Your task to perform on an android device: Is it going to rain today? Image 0: 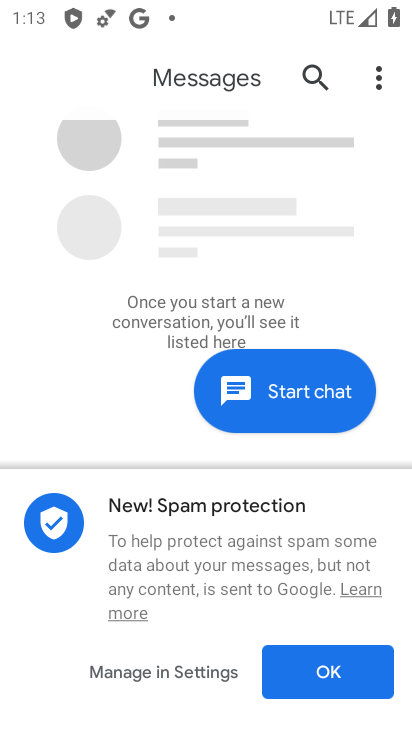
Step 0: press back button
Your task to perform on an android device: Is it going to rain today? Image 1: 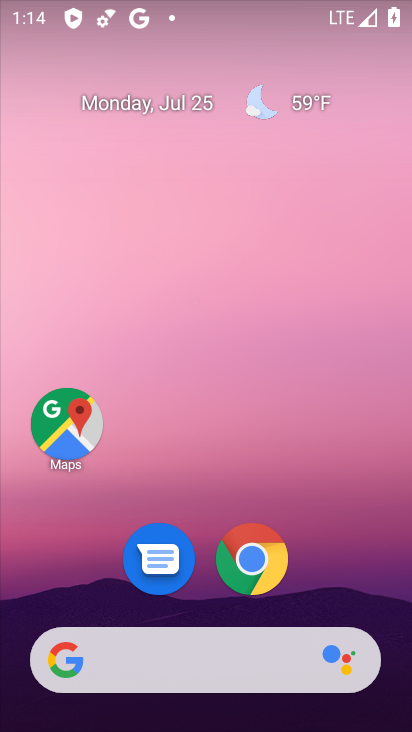
Step 1: drag from (74, 601) to (232, 44)
Your task to perform on an android device: Is it going to rain today? Image 2: 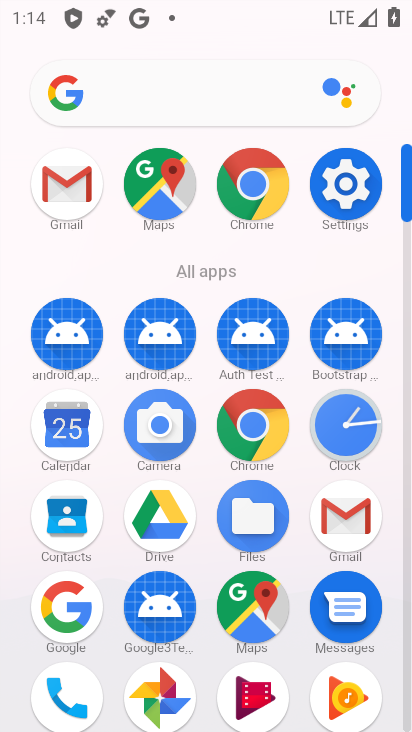
Step 2: click (145, 104)
Your task to perform on an android device: Is it going to rain today? Image 3: 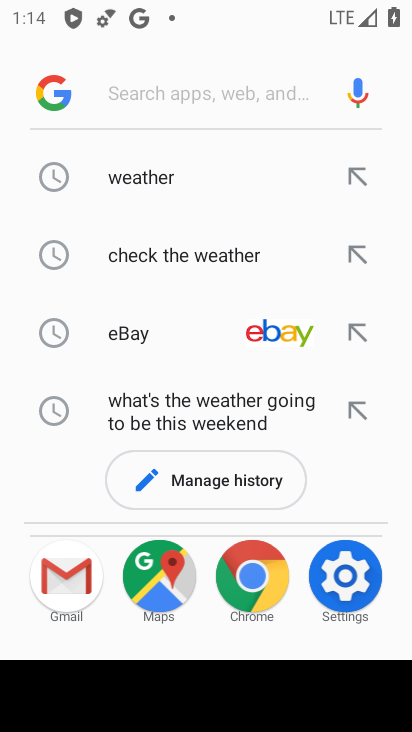
Step 3: click (152, 183)
Your task to perform on an android device: Is it going to rain today? Image 4: 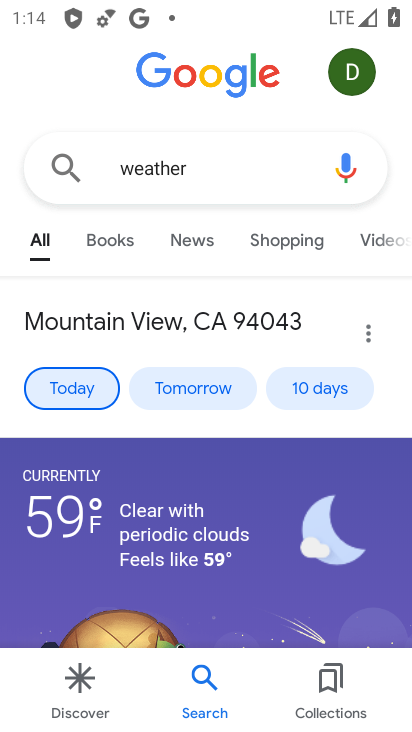
Step 4: task complete